Your task to perform on an android device: Go to sound settings Image 0: 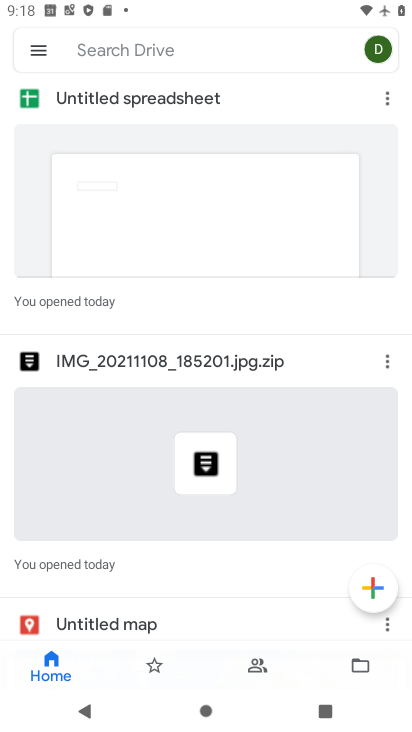
Step 0: press home button
Your task to perform on an android device: Go to sound settings Image 1: 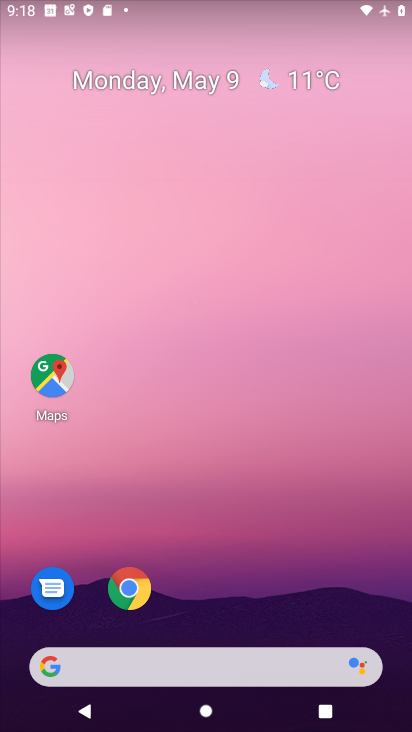
Step 1: drag from (185, 658) to (322, 194)
Your task to perform on an android device: Go to sound settings Image 2: 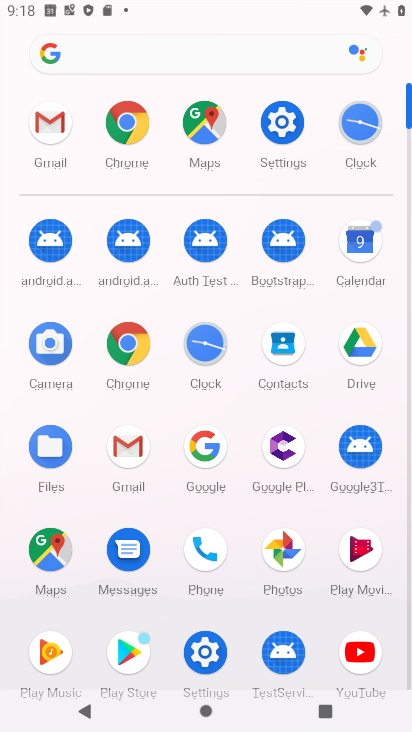
Step 2: click (286, 125)
Your task to perform on an android device: Go to sound settings Image 3: 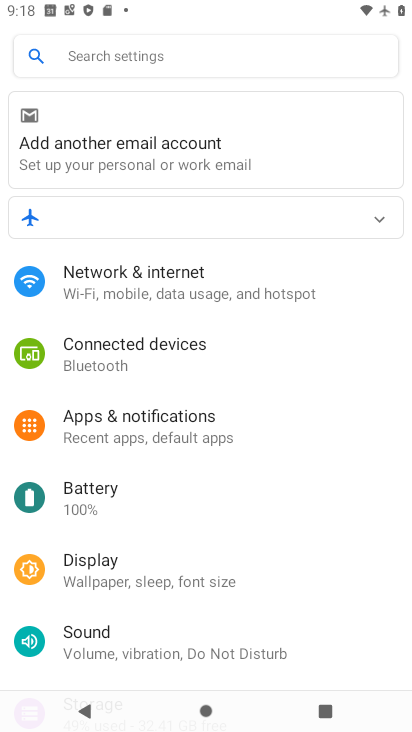
Step 3: click (93, 633)
Your task to perform on an android device: Go to sound settings Image 4: 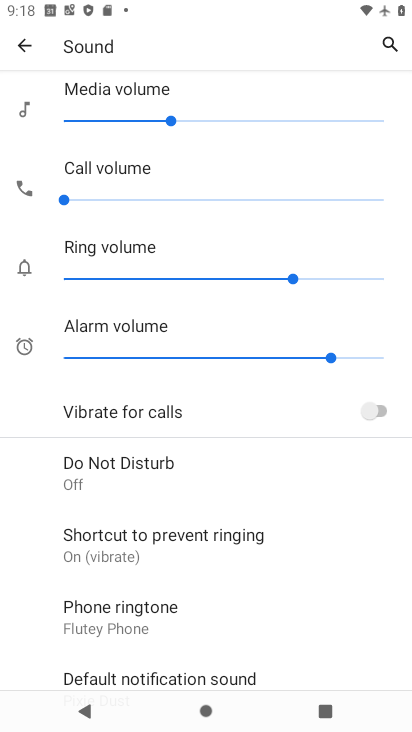
Step 4: task complete